Your task to perform on an android device: Clear the cart on newegg. Search for "usb-c to usb-b" on newegg, select the first entry, add it to the cart, then select checkout. Image 0: 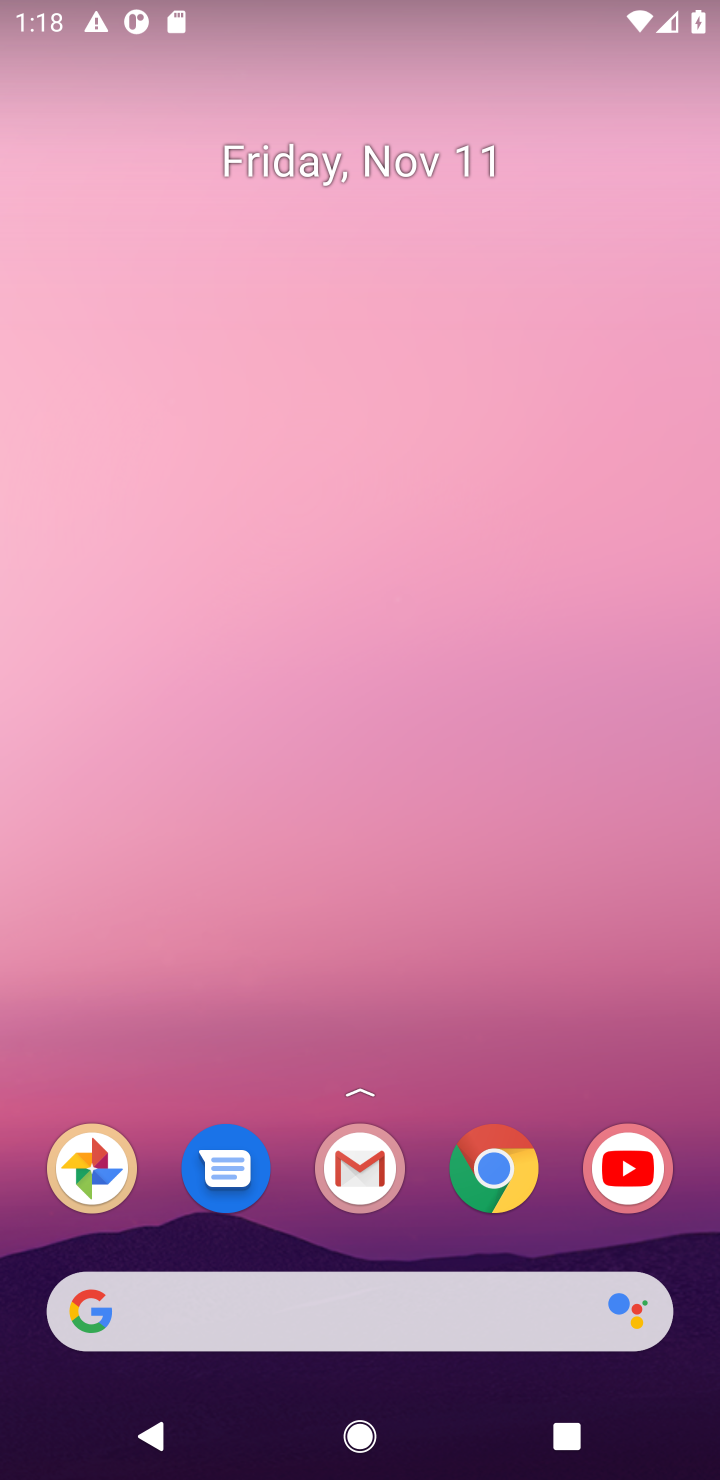
Step 0: click (472, 1176)
Your task to perform on an android device: Clear the cart on newegg. Search for "usb-c to usb-b" on newegg, select the first entry, add it to the cart, then select checkout. Image 1: 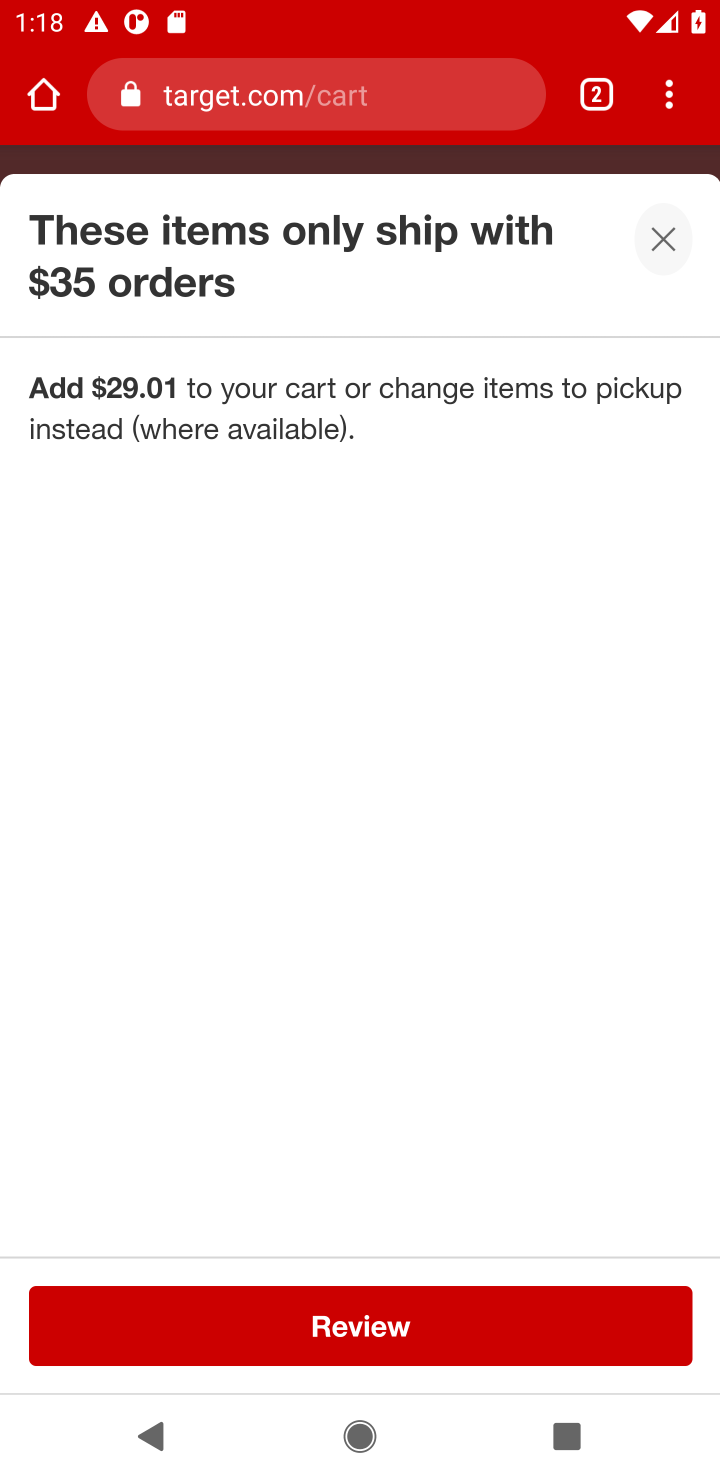
Step 1: click (241, 114)
Your task to perform on an android device: Clear the cart on newegg. Search for "usb-c to usb-b" on newegg, select the first entry, add it to the cart, then select checkout. Image 2: 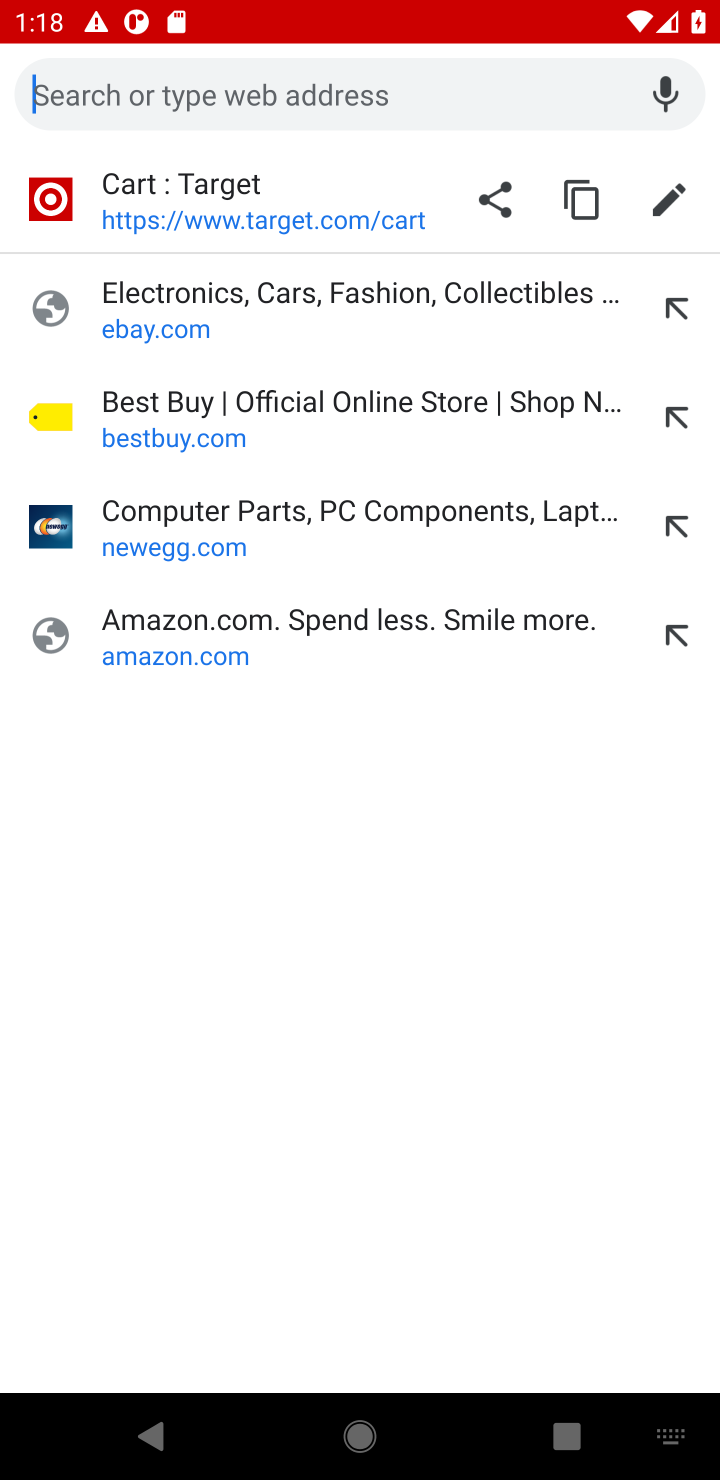
Step 2: click (141, 514)
Your task to perform on an android device: Clear the cart on newegg. Search for "usb-c to usb-b" on newegg, select the first entry, add it to the cart, then select checkout. Image 3: 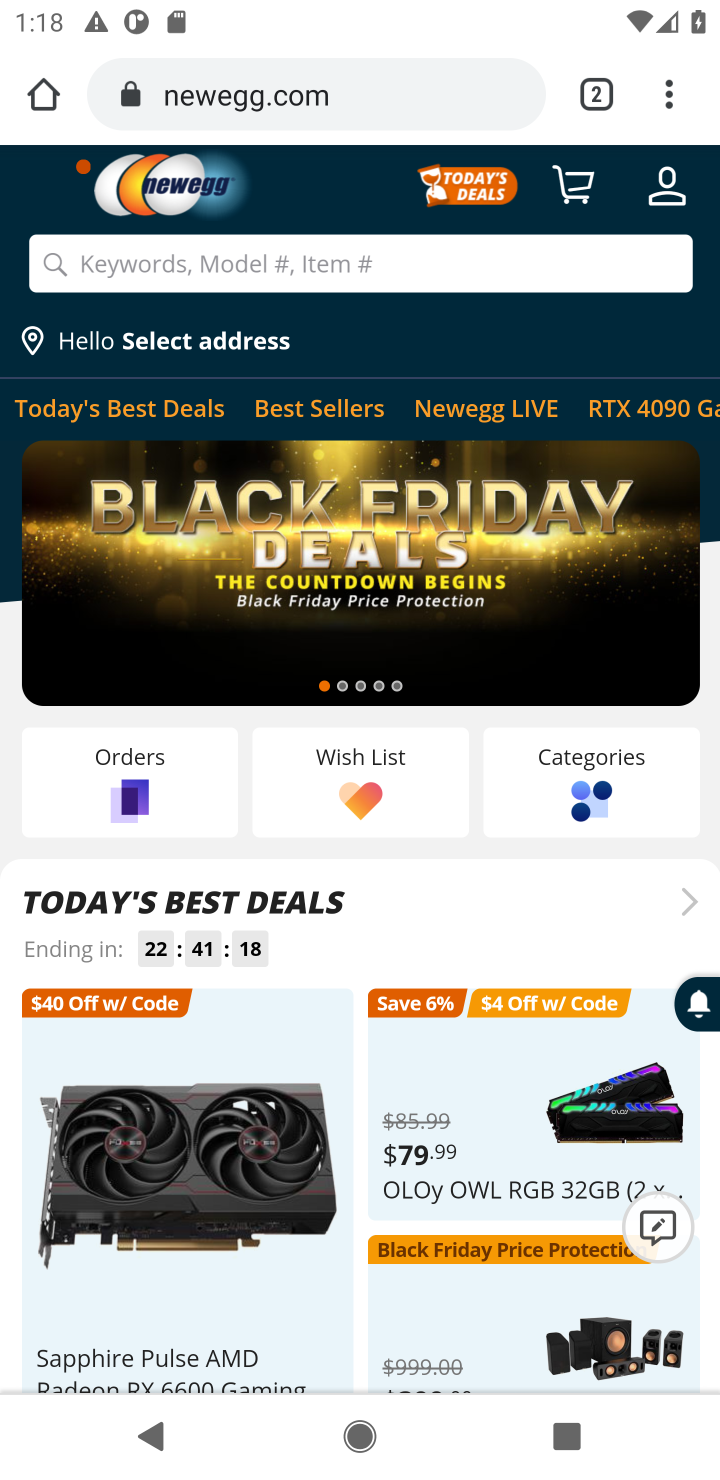
Step 3: click (578, 182)
Your task to perform on an android device: Clear the cart on newegg. Search for "usb-c to usb-b" on newegg, select the first entry, add it to the cart, then select checkout. Image 4: 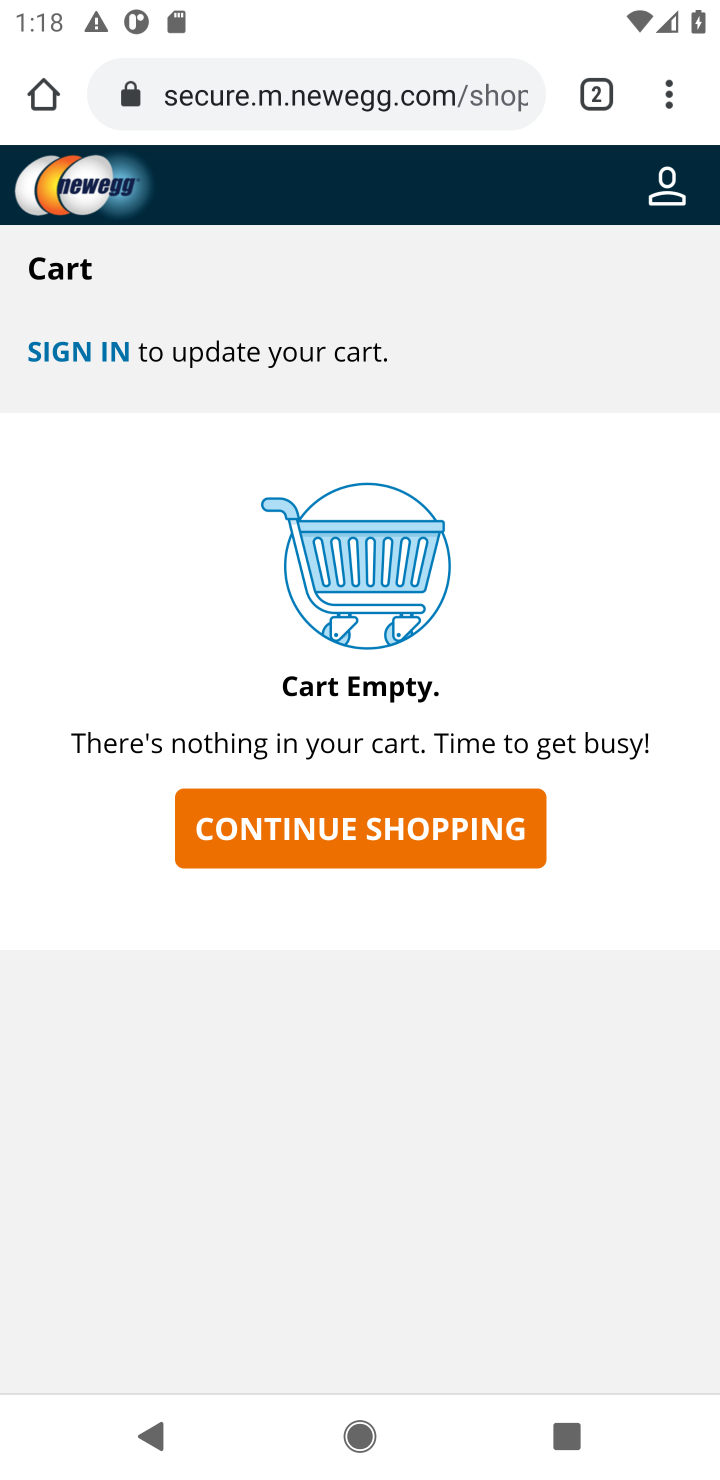
Step 4: click (348, 814)
Your task to perform on an android device: Clear the cart on newegg. Search for "usb-c to usb-b" on newegg, select the first entry, add it to the cart, then select checkout. Image 5: 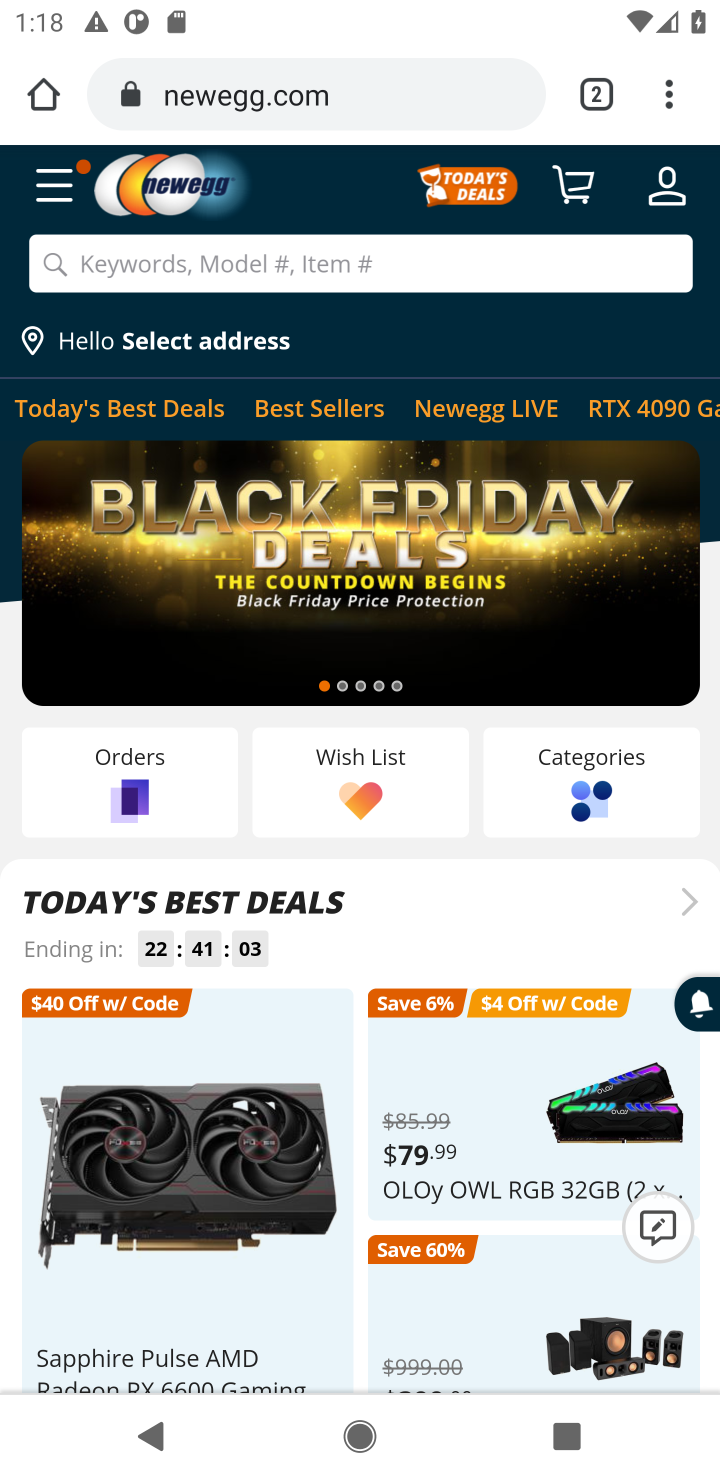
Step 5: click (191, 283)
Your task to perform on an android device: Clear the cart on newegg. Search for "usb-c to usb-b" on newegg, select the first entry, add it to the cart, then select checkout. Image 6: 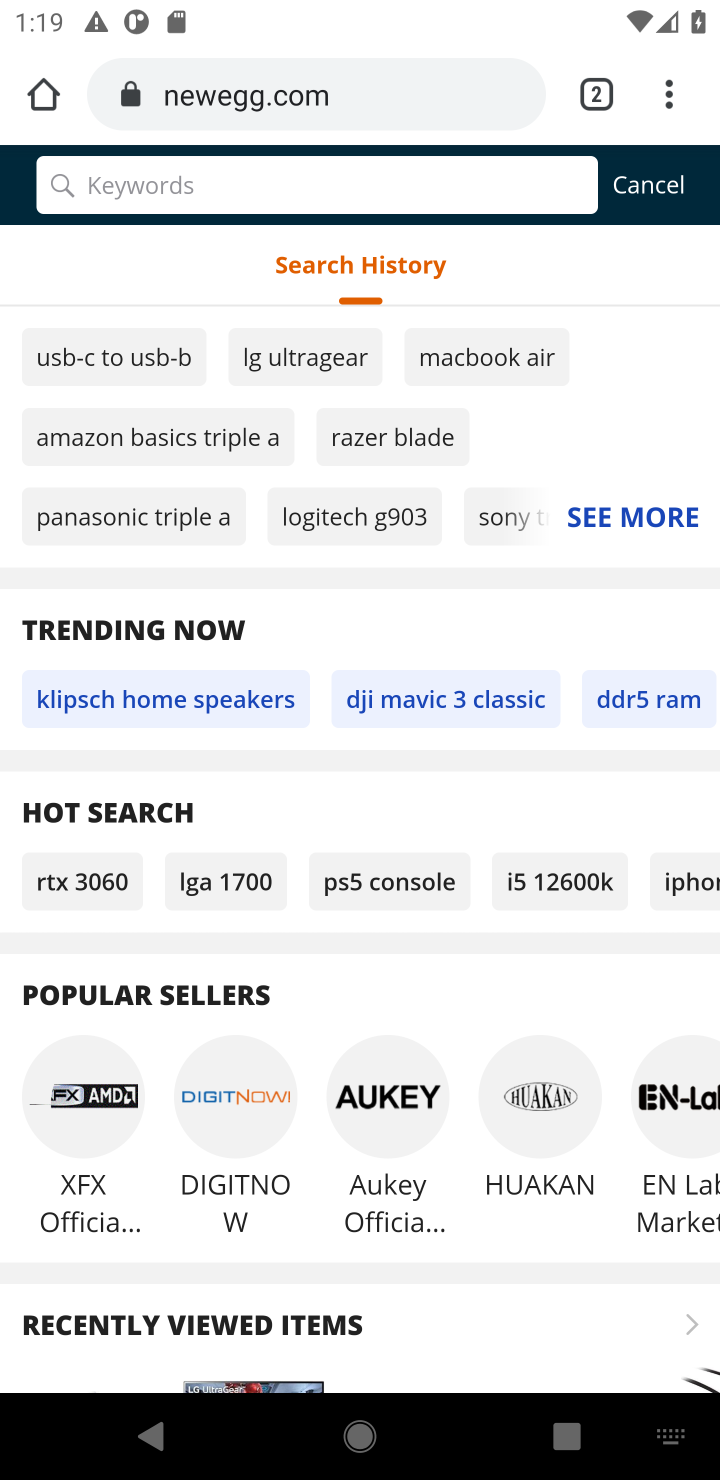
Step 6: type "usb-c to usb-b"
Your task to perform on an android device: Clear the cart on newegg. Search for "usb-c to usb-b" on newegg, select the first entry, add it to the cart, then select checkout. Image 7: 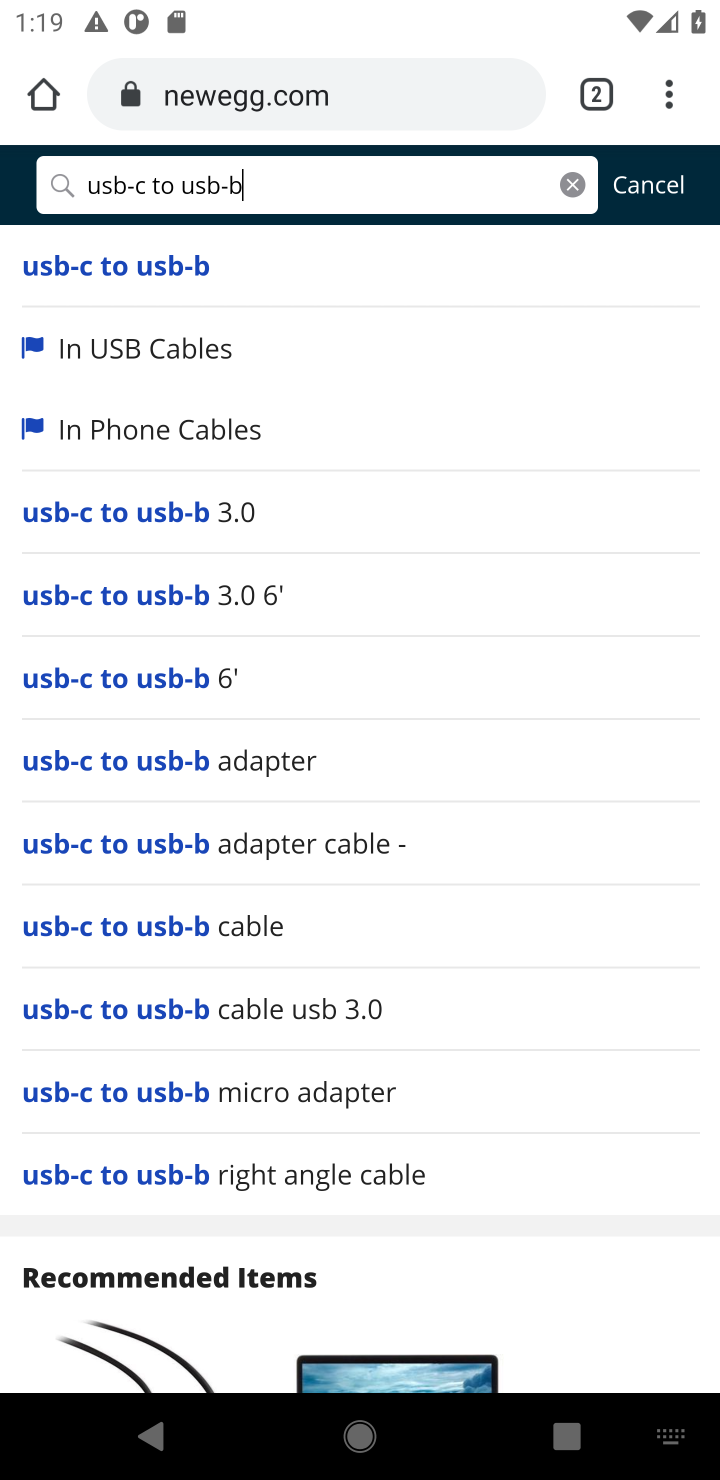
Step 7: click (111, 266)
Your task to perform on an android device: Clear the cart on newegg. Search for "usb-c to usb-b" on newegg, select the first entry, add it to the cart, then select checkout. Image 8: 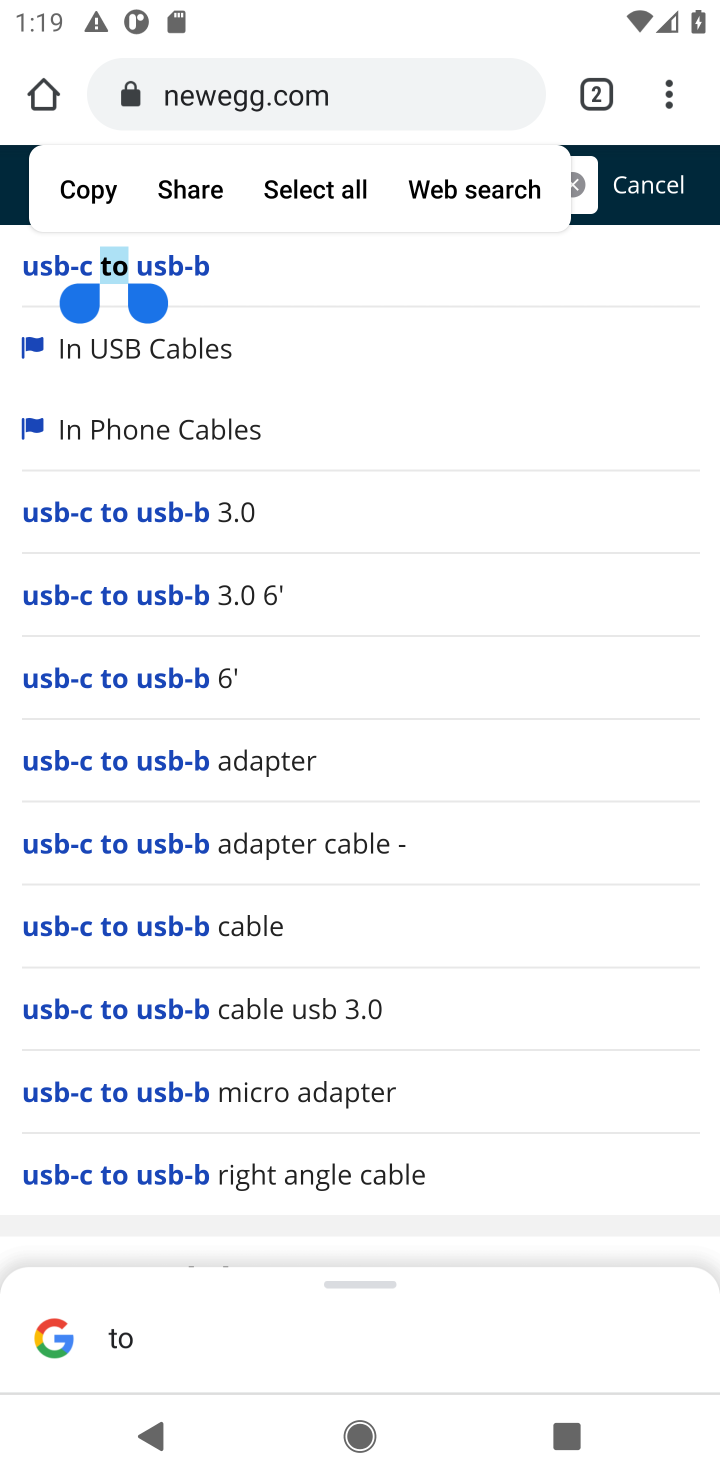
Step 8: click (157, 282)
Your task to perform on an android device: Clear the cart on newegg. Search for "usb-c to usb-b" on newegg, select the first entry, add it to the cart, then select checkout. Image 9: 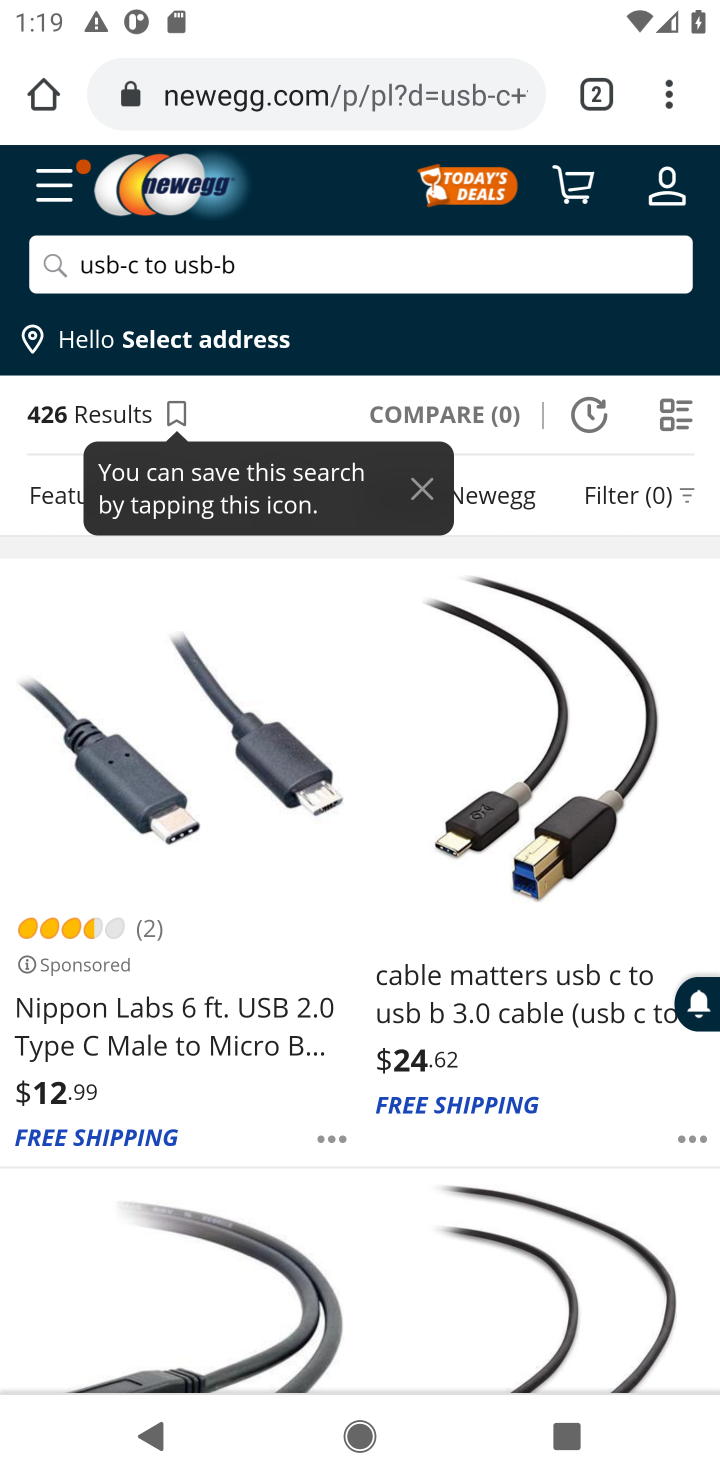
Step 9: task complete